Your task to perform on an android device: Go to network settings Image 0: 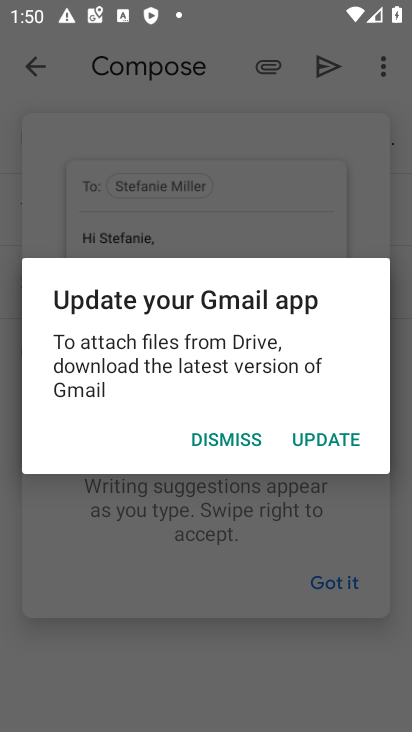
Step 0: press home button
Your task to perform on an android device: Go to network settings Image 1: 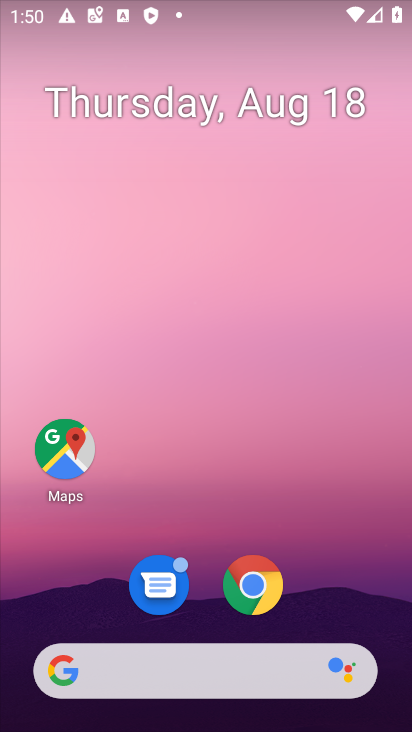
Step 1: drag from (306, 555) to (323, 12)
Your task to perform on an android device: Go to network settings Image 2: 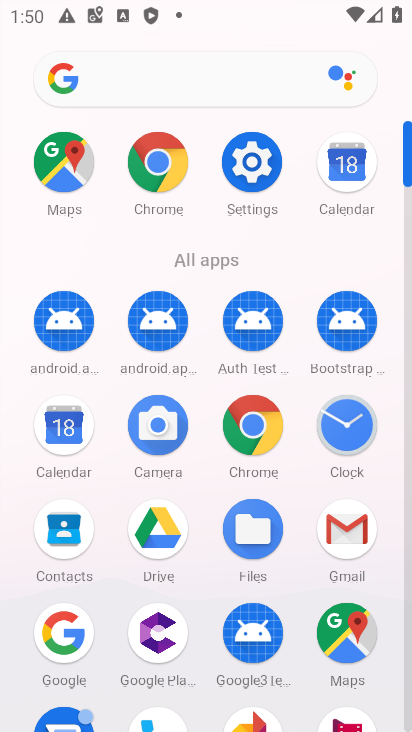
Step 2: click (257, 154)
Your task to perform on an android device: Go to network settings Image 3: 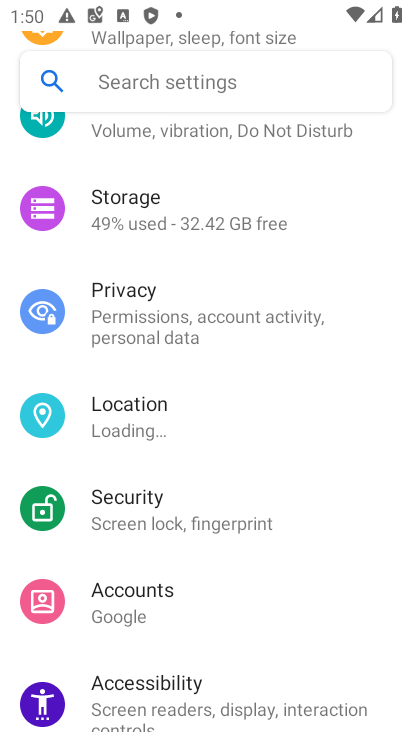
Step 3: drag from (222, 196) to (214, 641)
Your task to perform on an android device: Go to network settings Image 4: 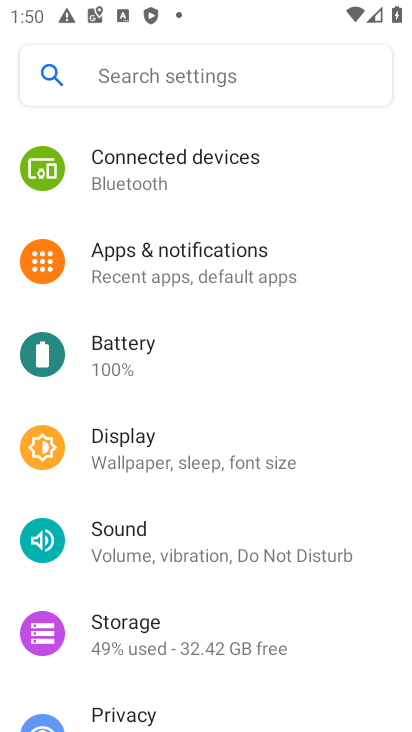
Step 4: drag from (246, 212) to (228, 577)
Your task to perform on an android device: Go to network settings Image 5: 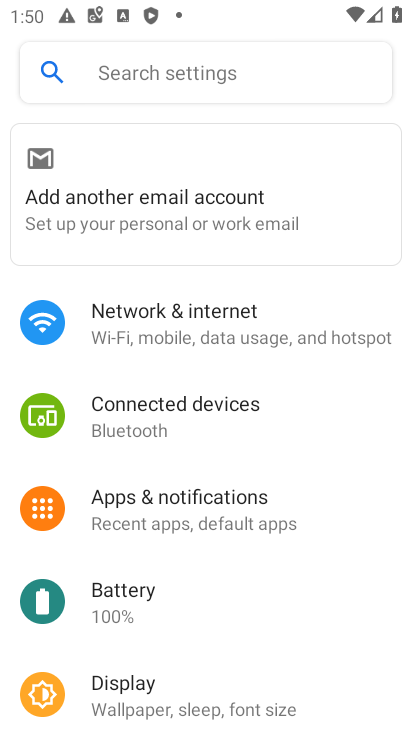
Step 5: click (230, 324)
Your task to perform on an android device: Go to network settings Image 6: 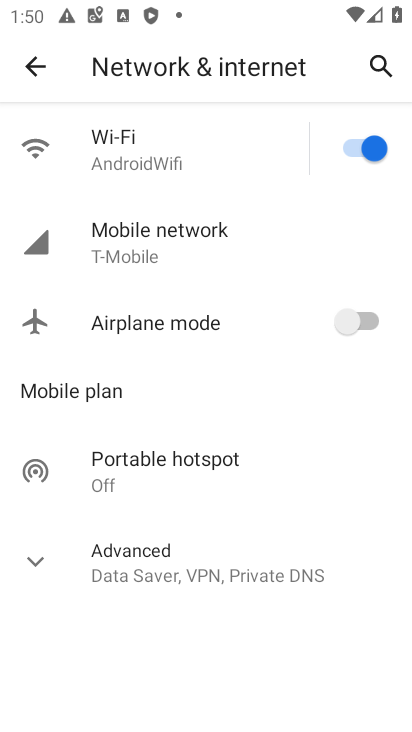
Step 6: task complete